Your task to perform on an android device: open a bookmark in the chrome app Image 0: 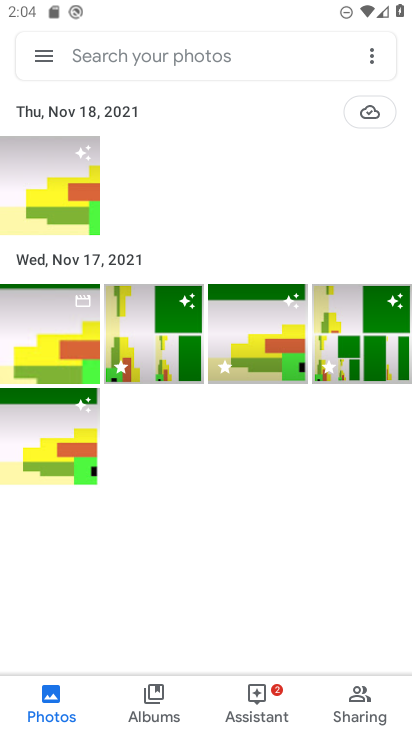
Step 0: press home button
Your task to perform on an android device: open a bookmark in the chrome app Image 1: 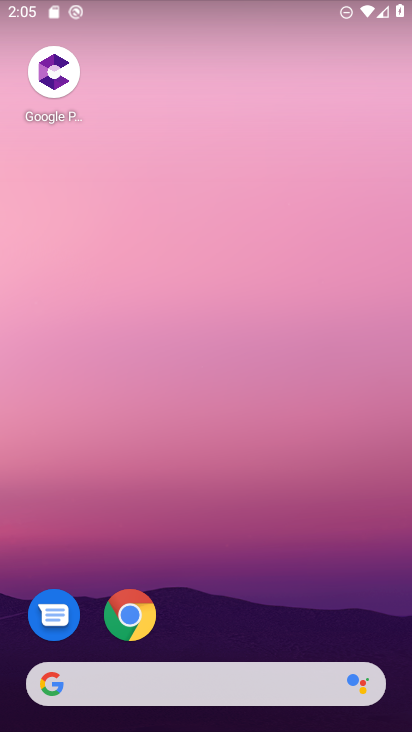
Step 1: click (136, 616)
Your task to perform on an android device: open a bookmark in the chrome app Image 2: 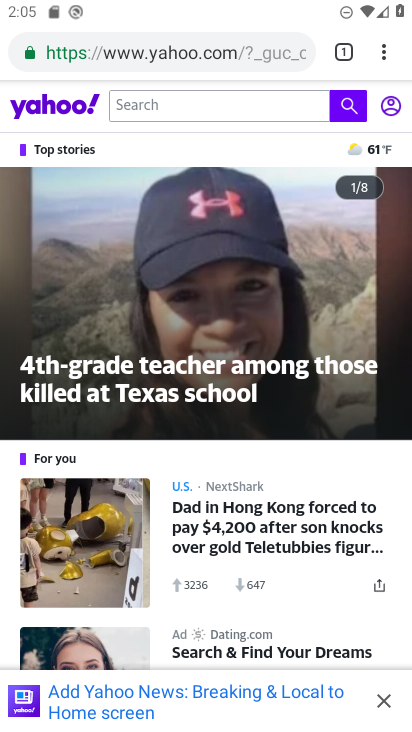
Step 2: click (384, 46)
Your task to perform on an android device: open a bookmark in the chrome app Image 3: 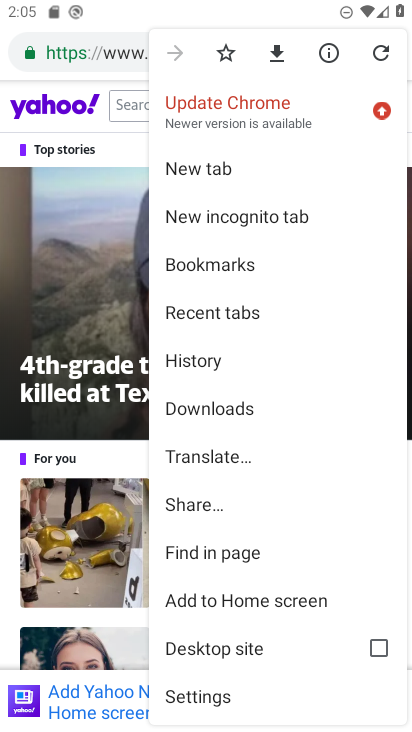
Step 3: click (246, 262)
Your task to perform on an android device: open a bookmark in the chrome app Image 4: 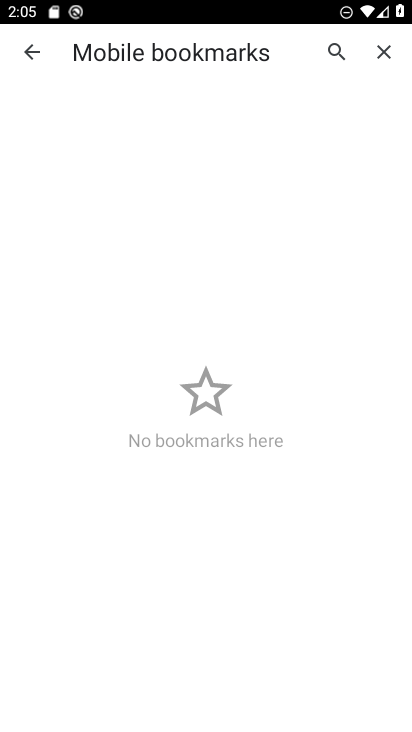
Step 4: task complete